Your task to perform on an android device: add a label to a message in the gmail app Image 0: 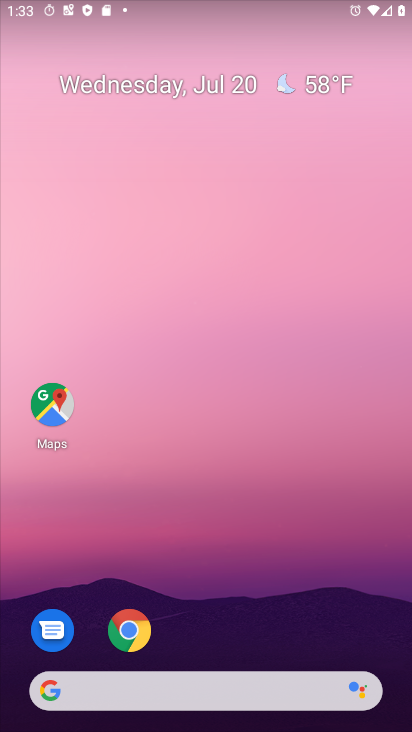
Step 0: press home button
Your task to perform on an android device: add a label to a message in the gmail app Image 1: 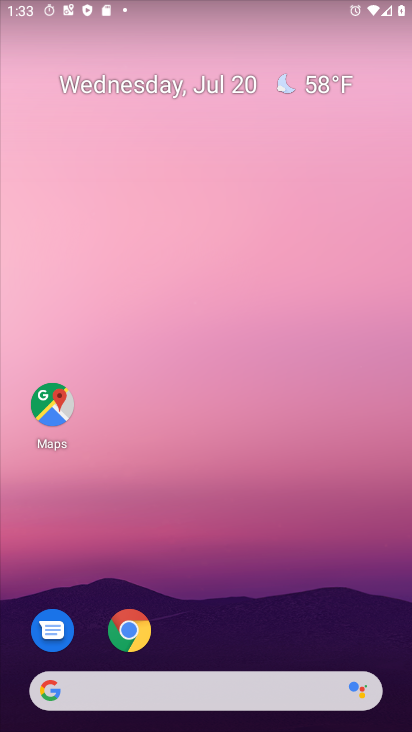
Step 1: drag from (222, 681) to (251, 171)
Your task to perform on an android device: add a label to a message in the gmail app Image 2: 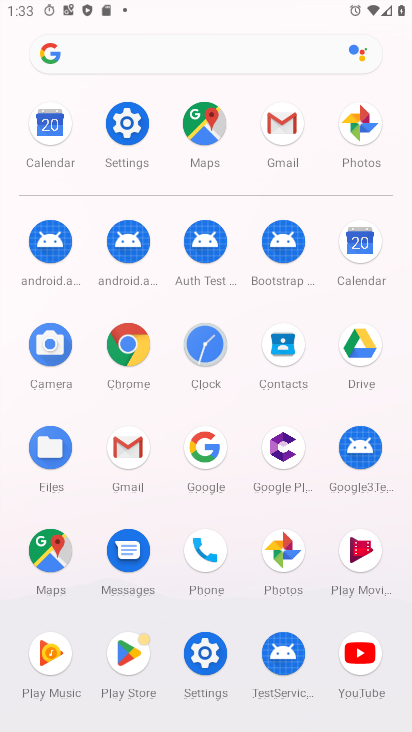
Step 2: click (279, 126)
Your task to perform on an android device: add a label to a message in the gmail app Image 3: 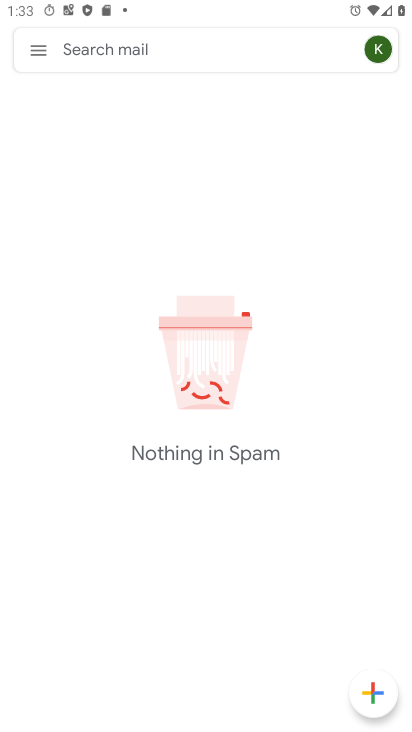
Step 3: click (35, 48)
Your task to perform on an android device: add a label to a message in the gmail app Image 4: 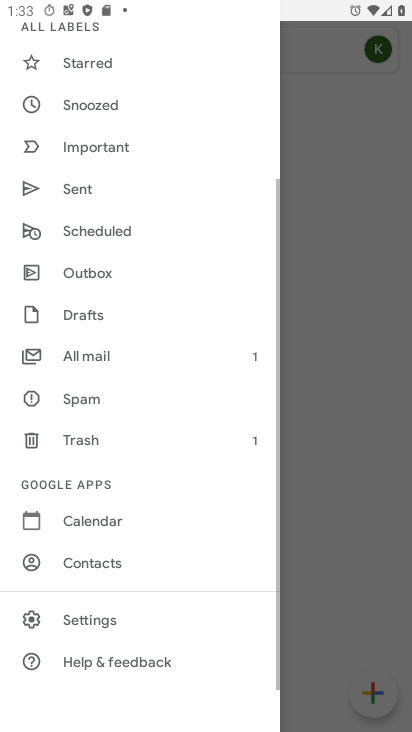
Step 4: drag from (215, 112) to (294, 619)
Your task to perform on an android device: add a label to a message in the gmail app Image 5: 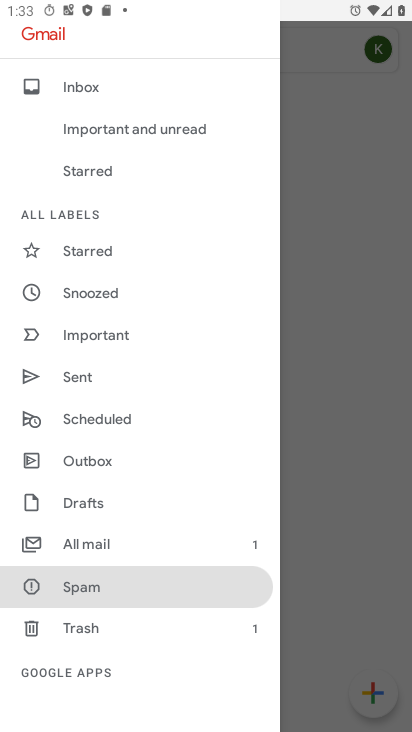
Step 5: click (92, 79)
Your task to perform on an android device: add a label to a message in the gmail app Image 6: 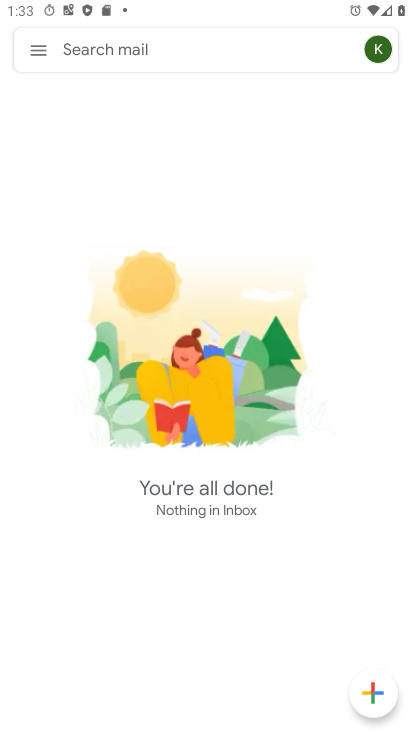
Step 6: task complete